Your task to perform on an android device: What's the weather going to be this weekend? Image 0: 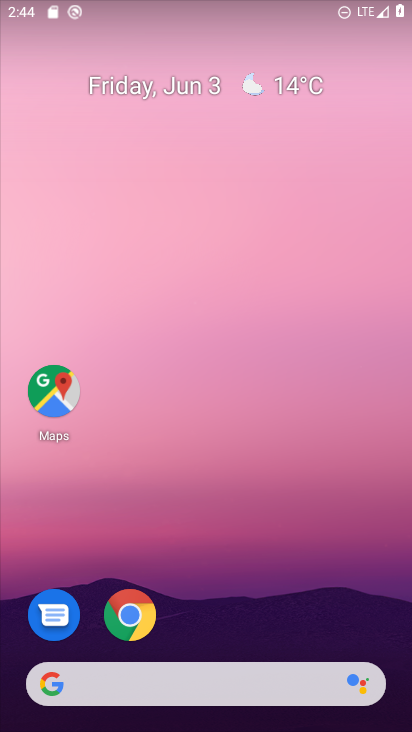
Step 0: click (262, 125)
Your task to perform on an android device: What's the weather going to be this weekend? Image 1: 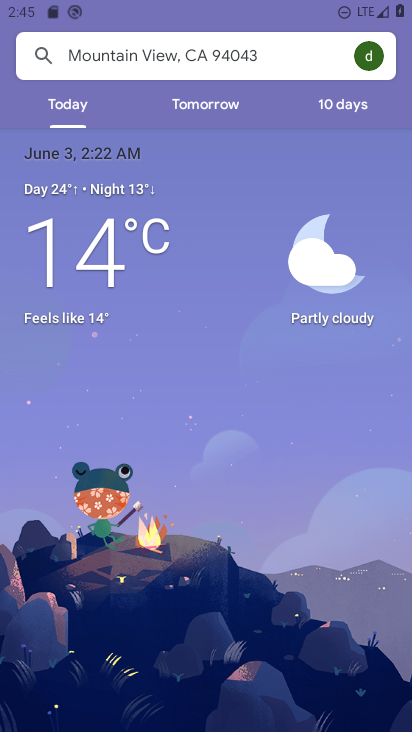
Step 1: drag from (203, 410) to (220, 60)
Your task to perform on an android device: What's the weather going to be this weekend? Image 2: 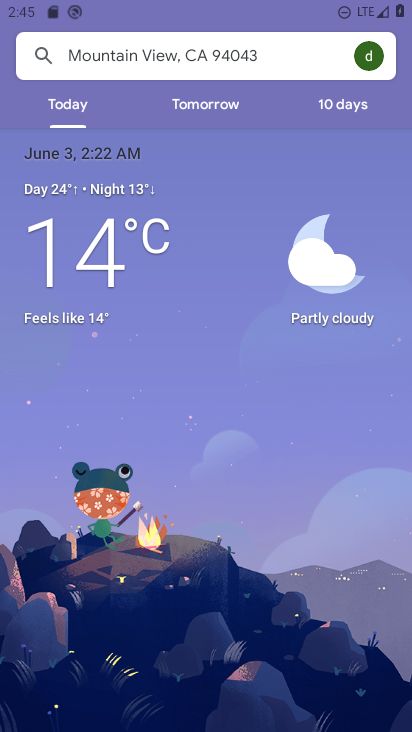
Step 2: press home button
Your task to perform on an android device: What's the weather going to be this weekend? Image 3: 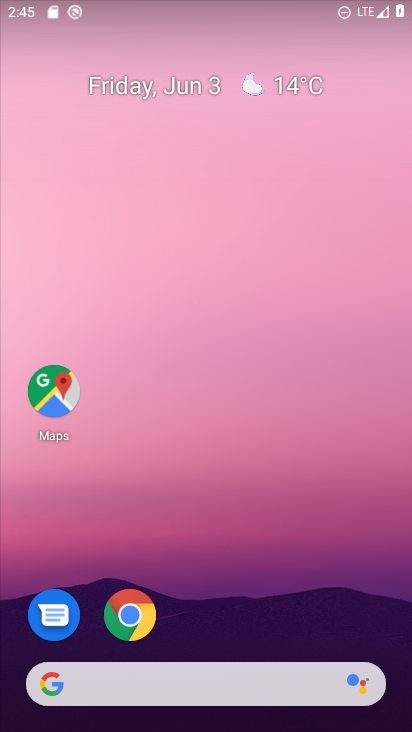
Step 3: drag from (220, 573) to (264, 91)
Your task to perform on an android device: What's the weather going to be this weekend? Image 4: 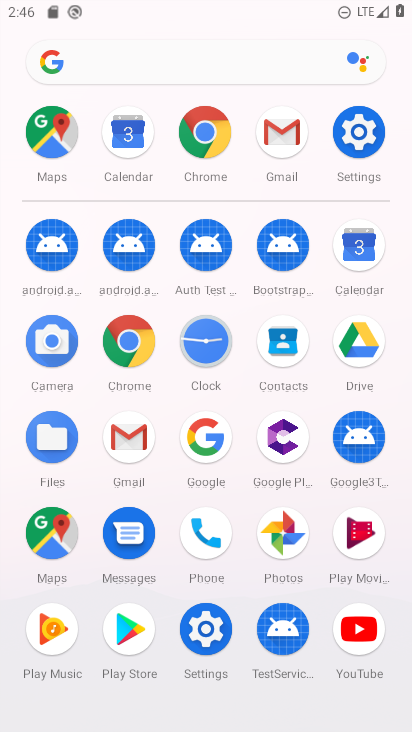
Step 4: click (151, 62)
Your task to perform on an android device: What's the weather going to be this weekend? Image 5: 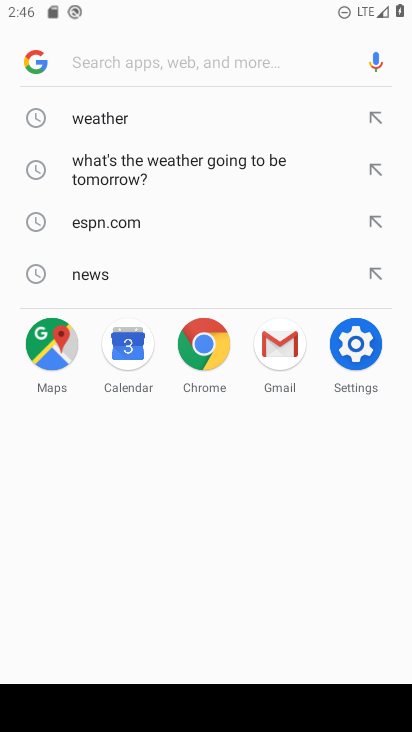
Step 5: type "weather going to be this weekend?"
Your task to perform on an android device: What's the weather going to be this weekend? Image 6: 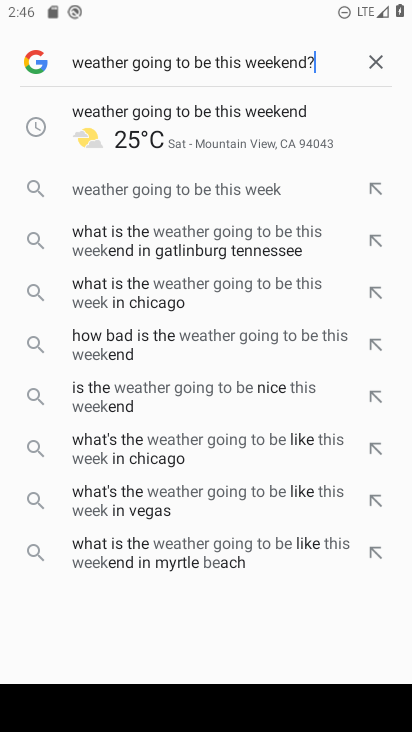
Step 6: type ""
Your task to perform on an android device: What's the weather going to be this weekend? Image 7: 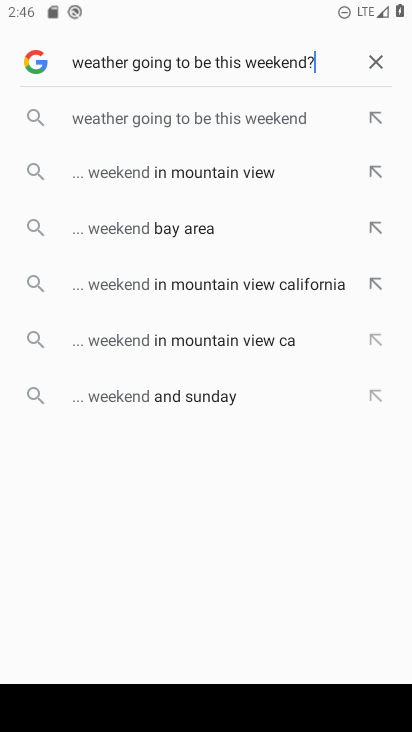
Step 7: click (150, 121)
Your task to perform on an android device: What's the weather going to be this weekend? Image 8: 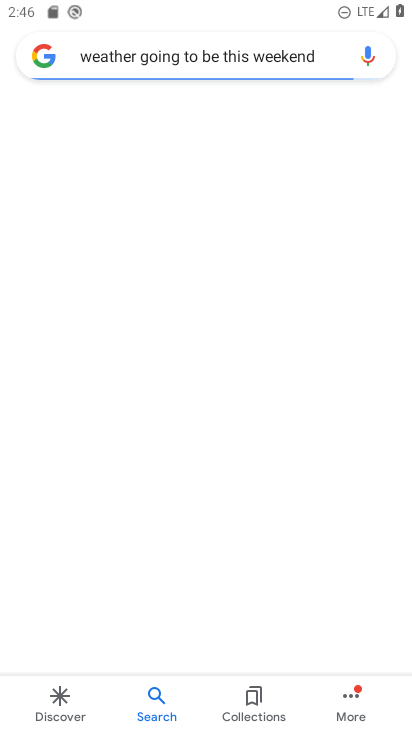
Step 8: task complete